Your task to perform on an android device: Clear the shopping cart on costco. Add "logitech g903" to the cart on costco, then select checkout. Image 0: 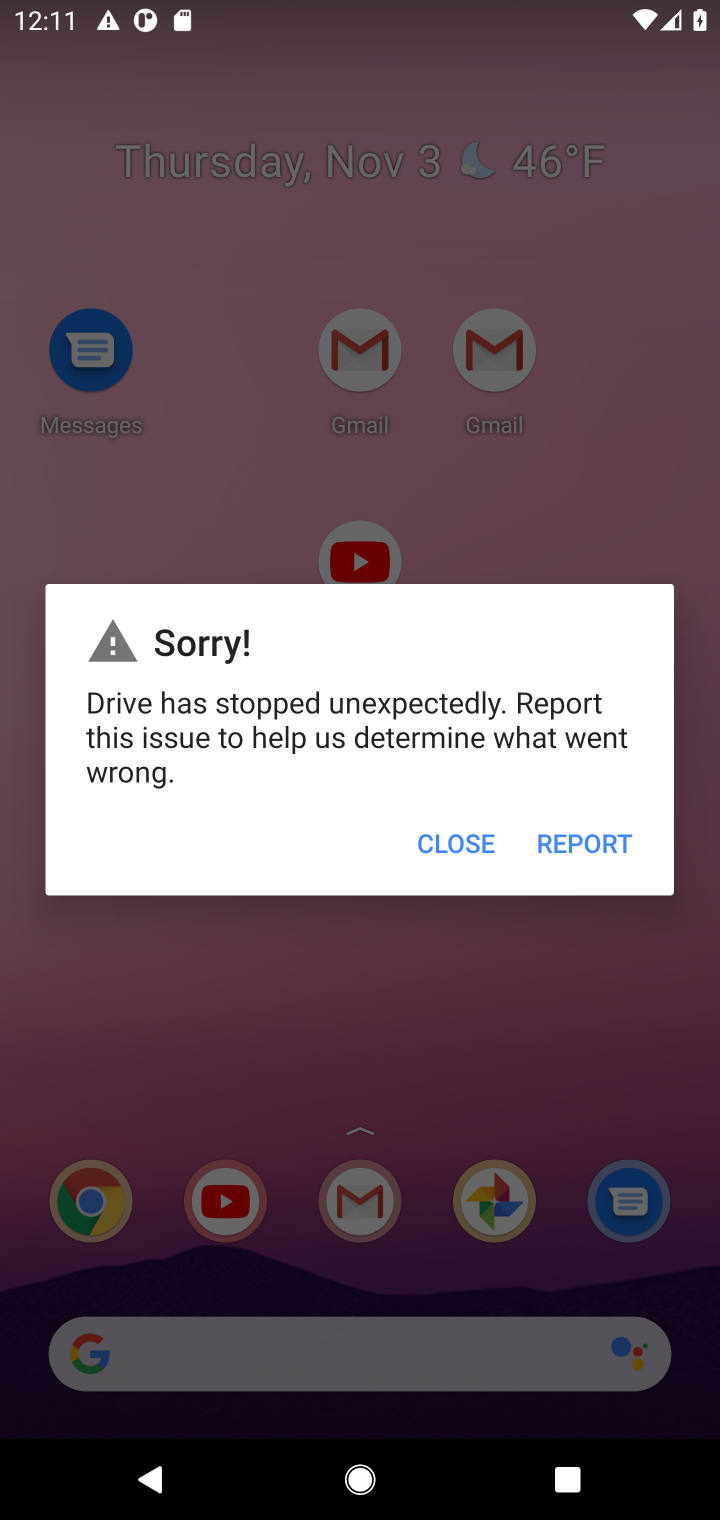
Step 0: press home button
Your task to perform on an android device: Clear the shopping cart on costco. Add "logitech g903" to the cart on costco, then select checkout. Image 1: 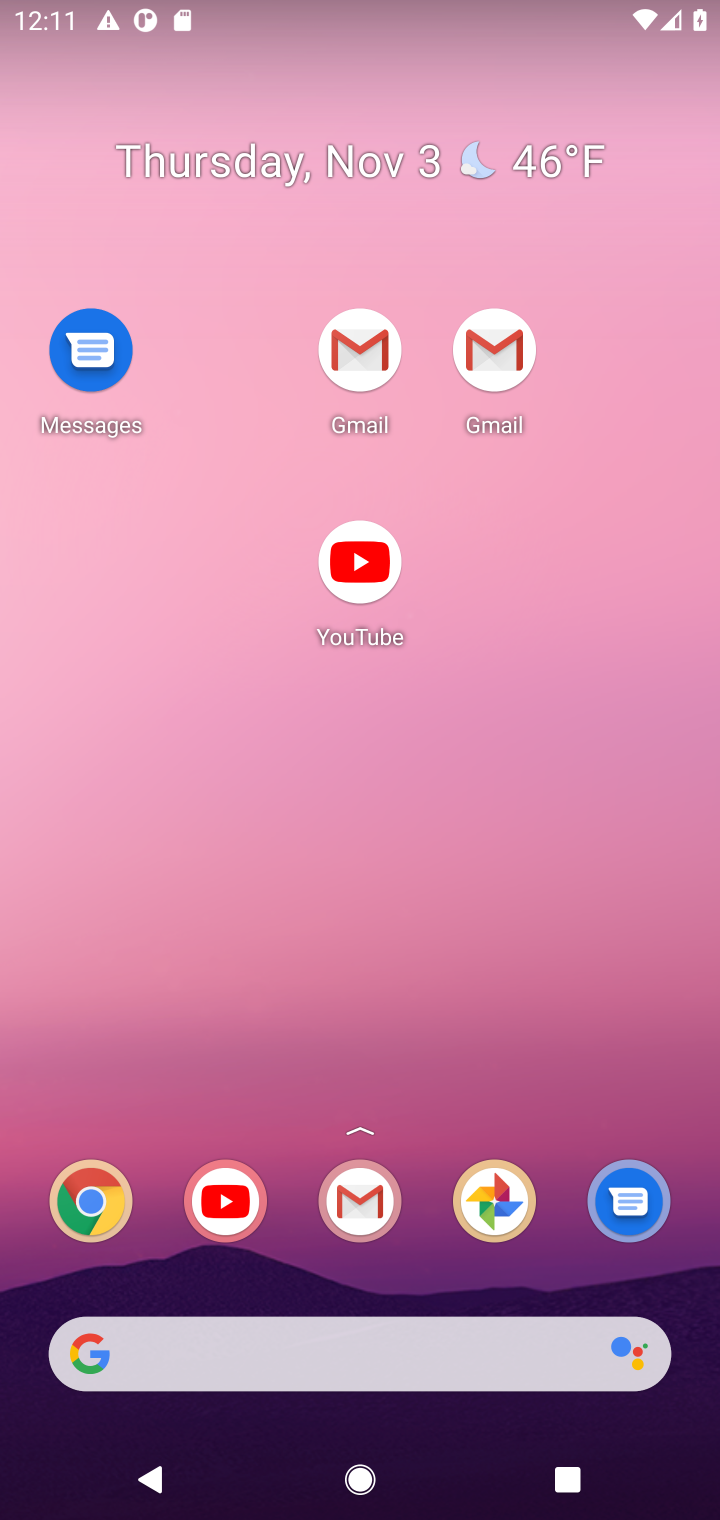
Step 1: drag from (421, 1286) to (353, 501)
Your task to perform on an android device: Clear the shopping cart on costco. Add "logitech g903" to the cart on costco, then select checkout. Image 2: 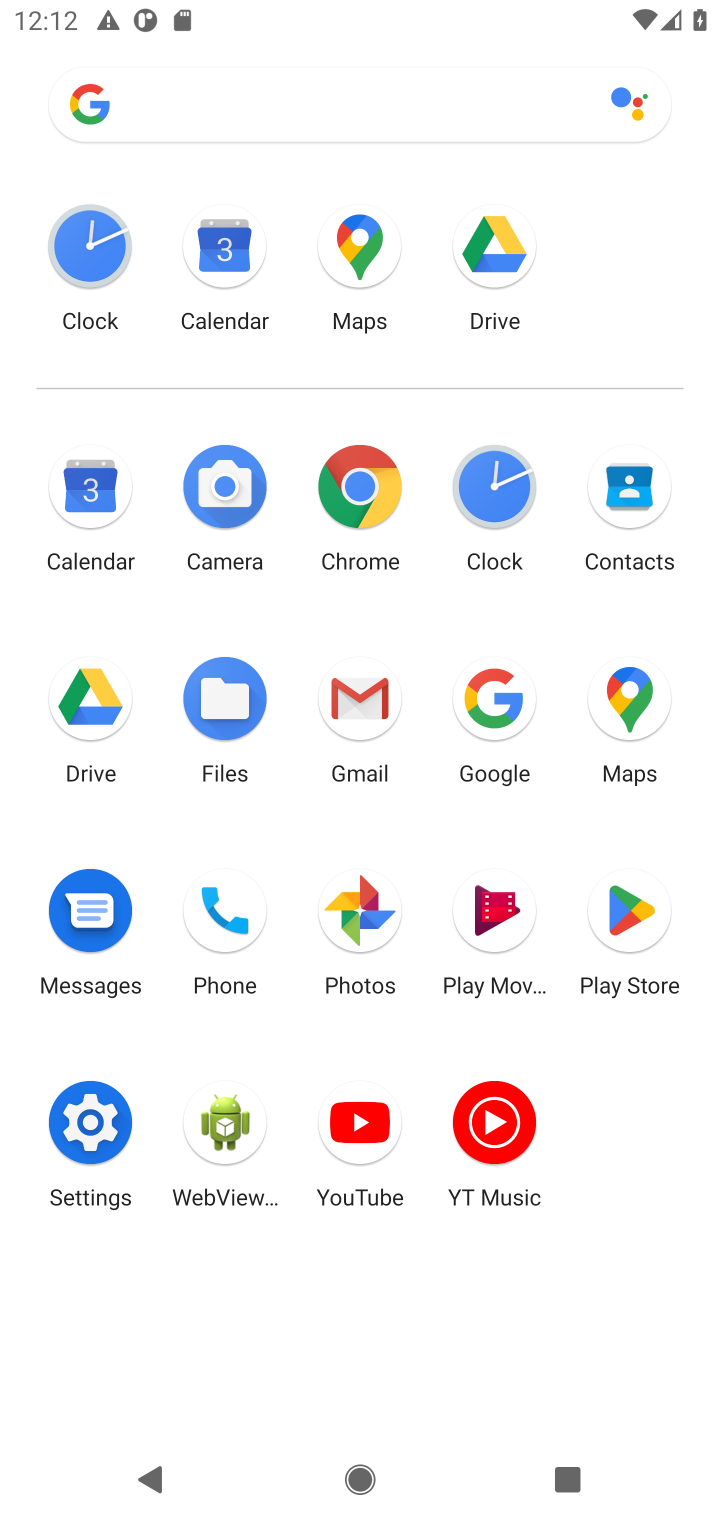
Step 2: click (330, 481)
Your task to perform on an android device: Clear the shopping cart on costco. Add "logitech g903" to the cart on costco, then select checkout. Image 3: 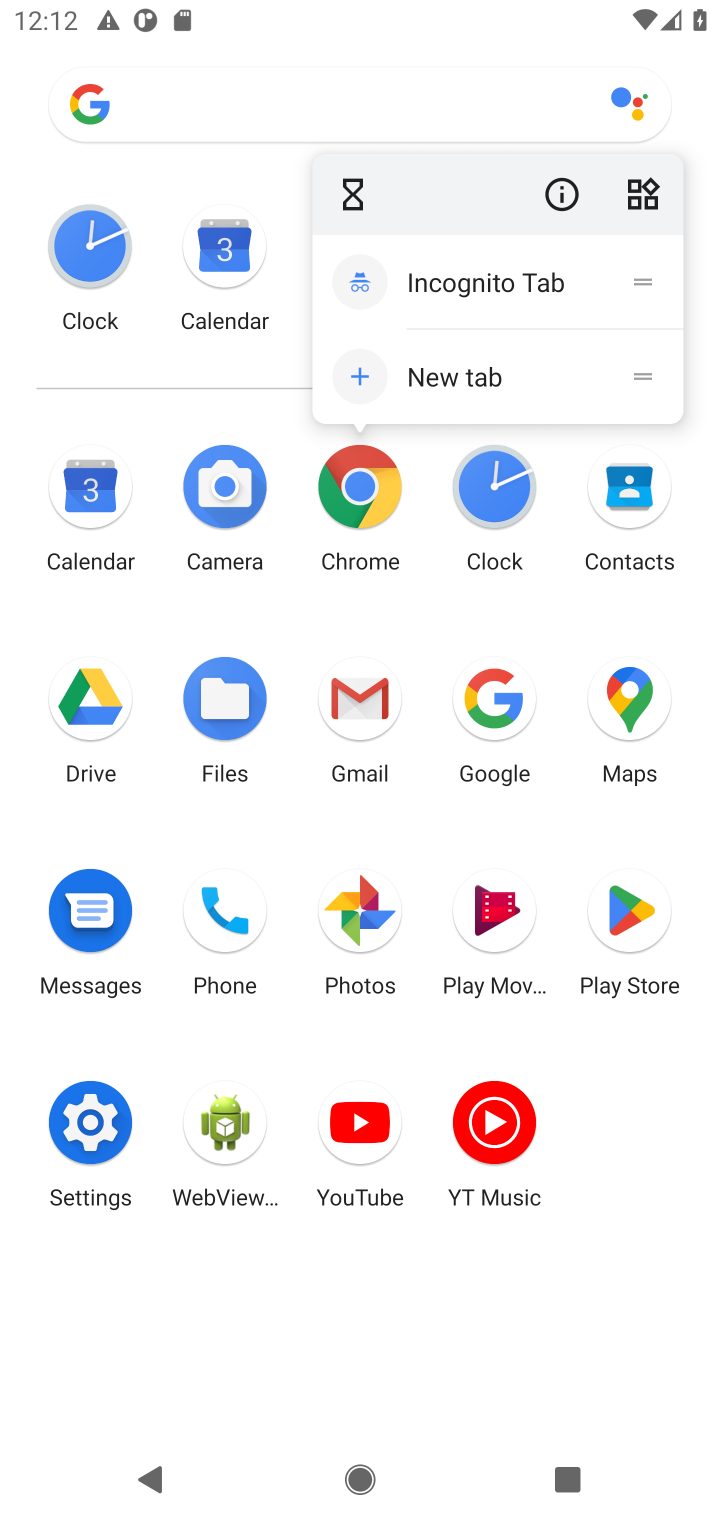
Step 3: click (363, 480)
Your task to perform on an android device: Clear the shopping cart on costco. Add "logitech g903" to the cart on costco, then select checkout. Image 4: 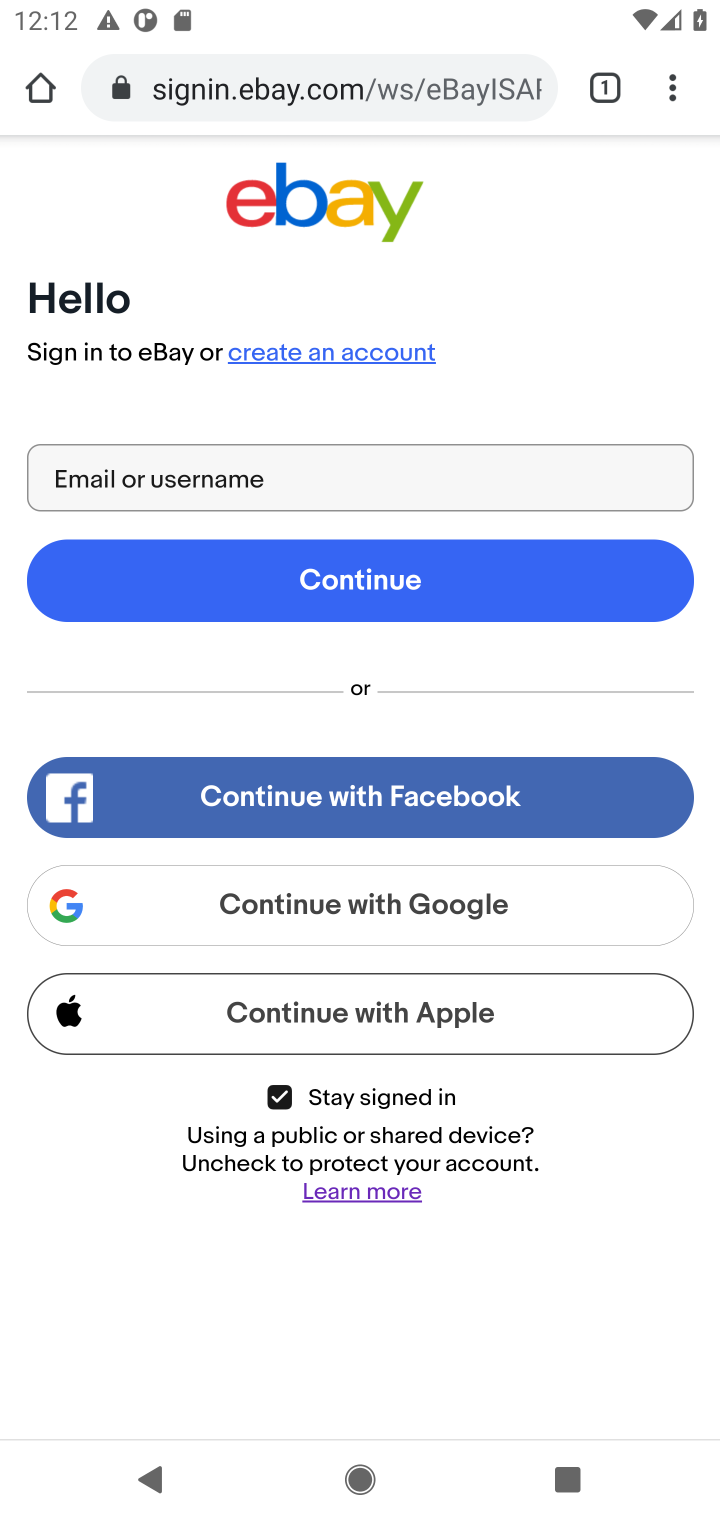
Step 4: click (479, 86)
Your task to perform on an android device: Clear the shopping cart on costco. Add "logitech g903" to the cart on costco, then select checkout. Image 5: 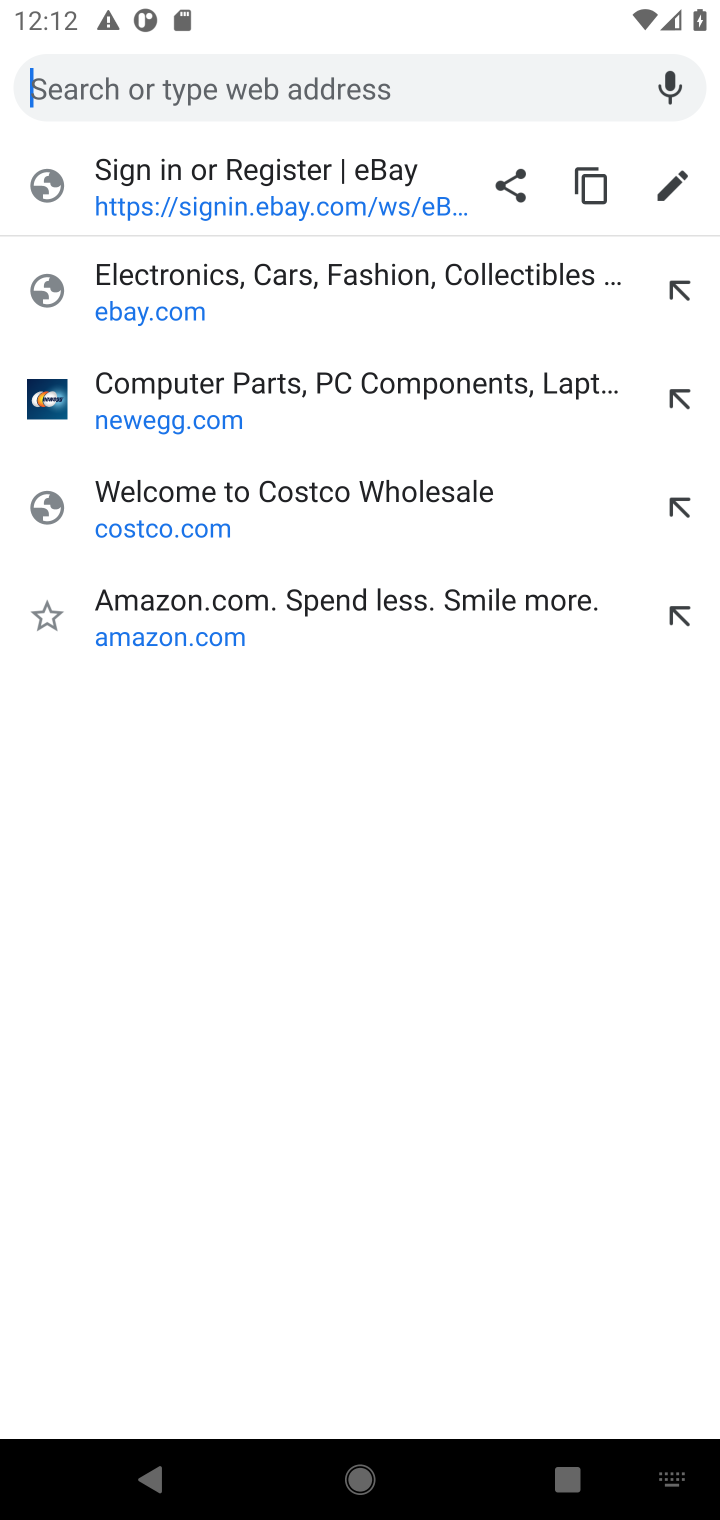
Step 5: type "costco.com"
Your task to perform on an android device: Clear the shopping cart on costco. Add "logitech g903" to the cart on costco, then select checkout. Image 6: 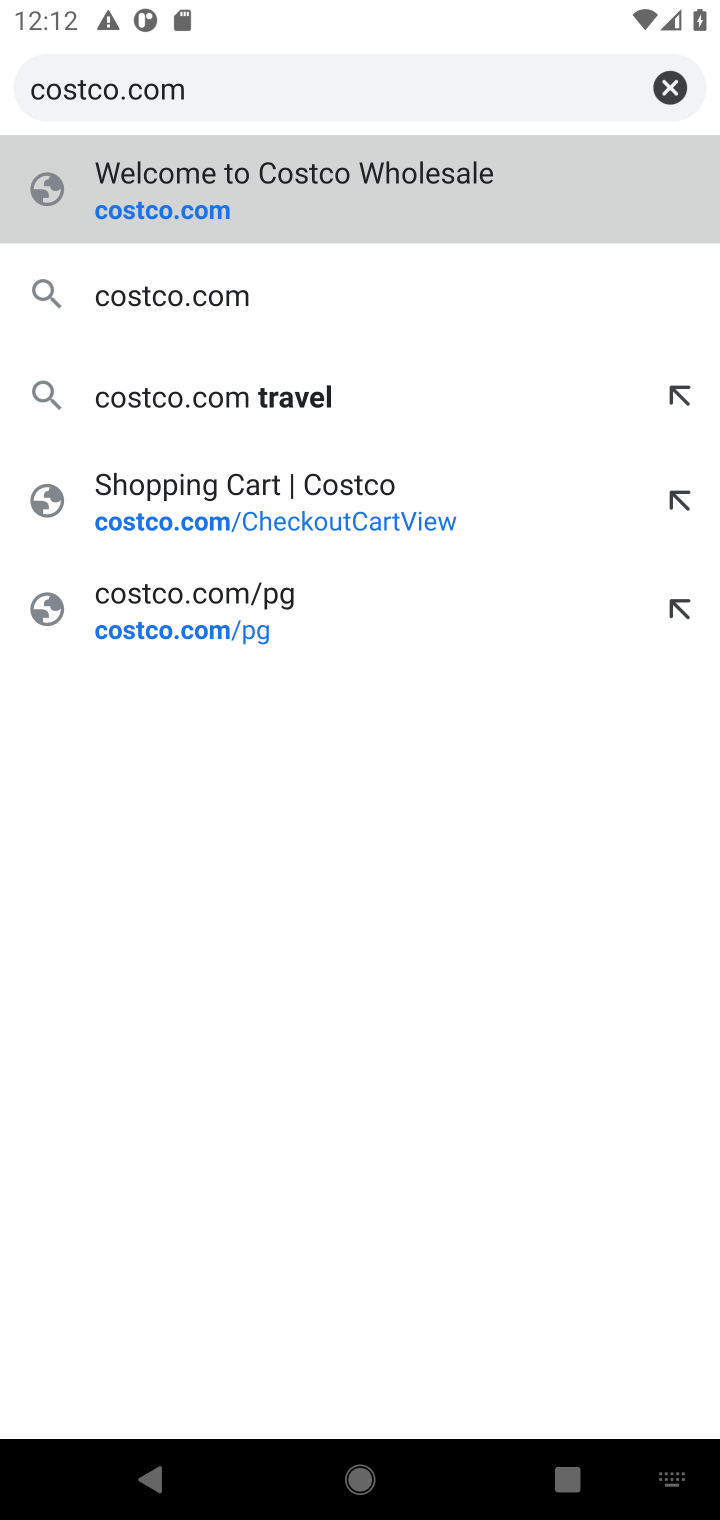
Step 6: press enter
Your task to perform on an android device: Clear the shopping cart on costco. Add "logitech g903" to the cart on costco, then select checkout. Image 7: 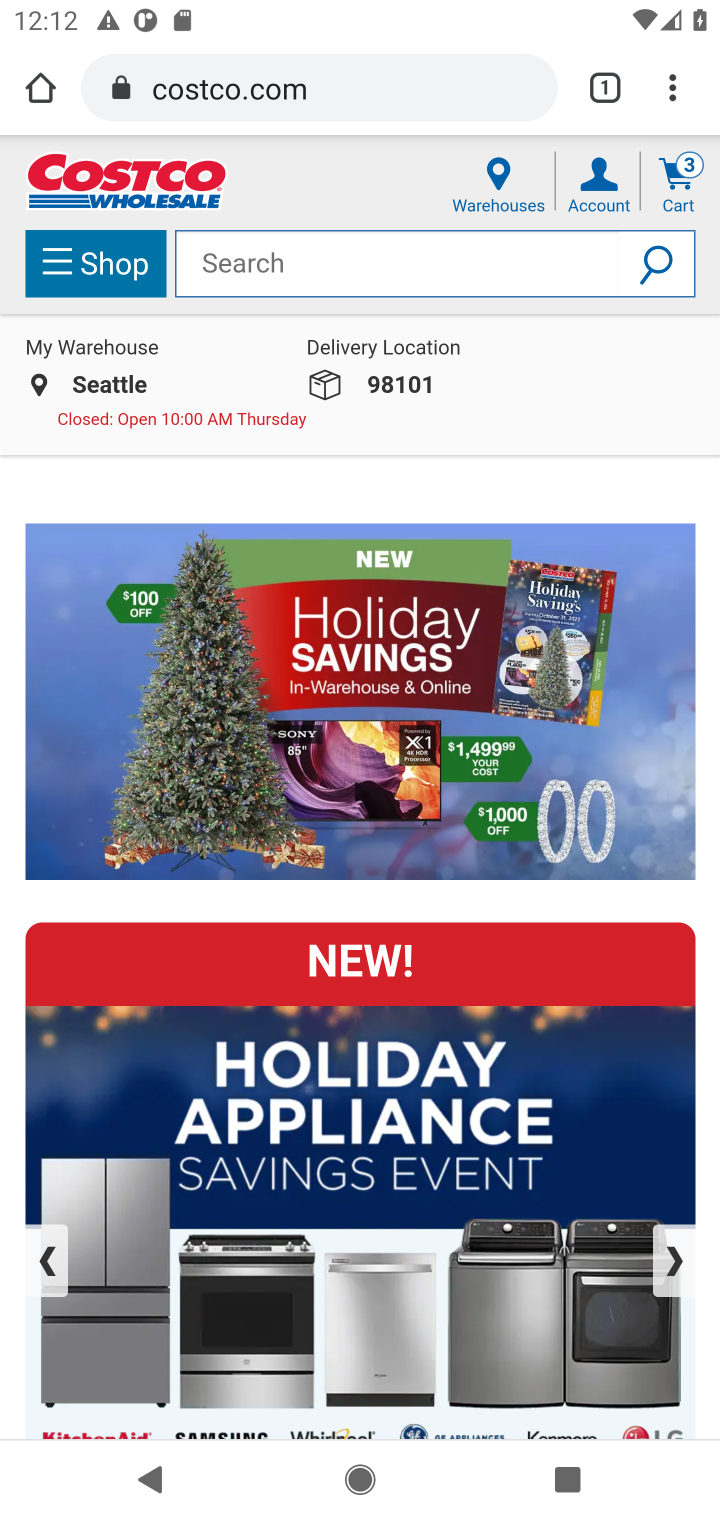
Step 7: press enter
Your task to perform on an android device: Clear the shopping cart on costco. Add "logitech g903" to the cart on costco, then select checkout. Image 8: 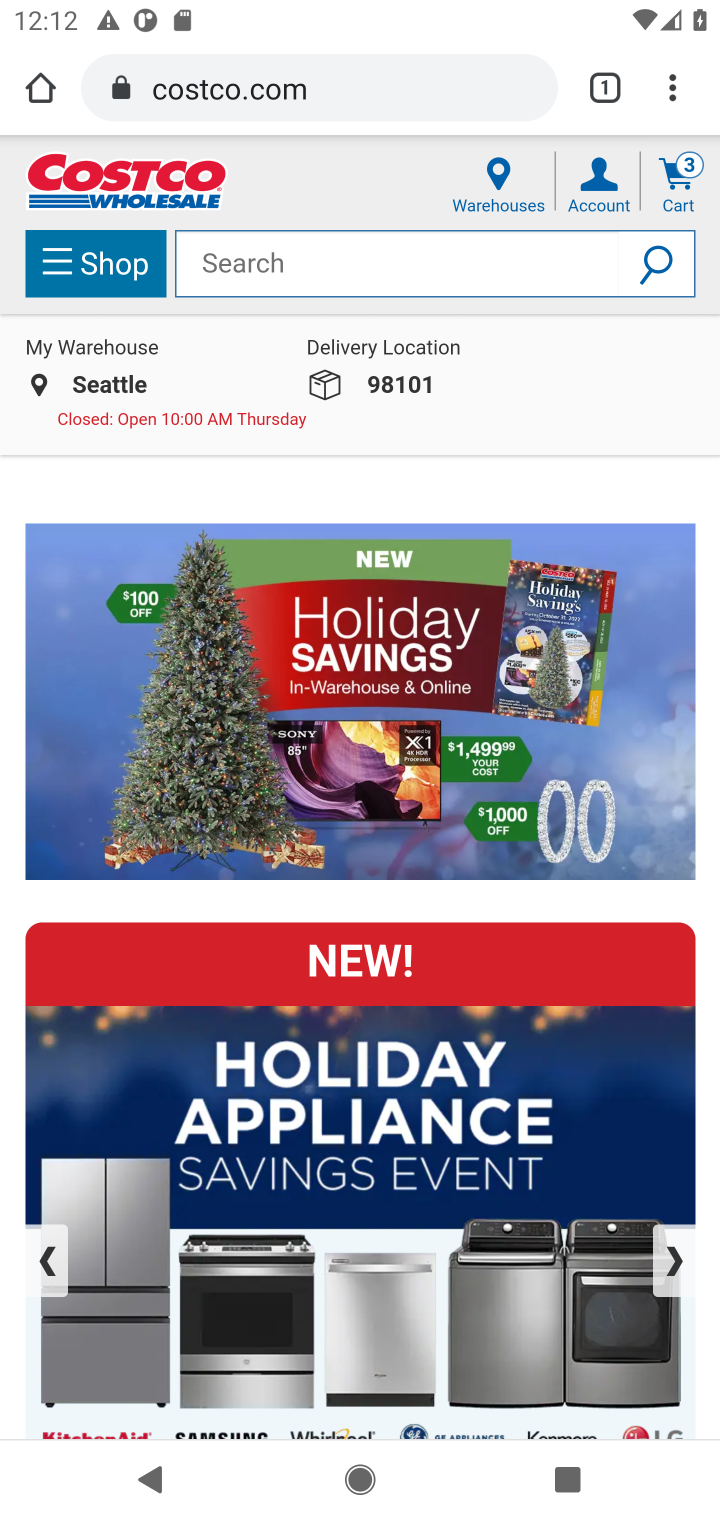
Step 8: click (694, 160)
Your task to perform on an android device: Clear the shopping cart on costco. Add "logitech g903" to the cart on costco, then select checkout. Image 9: 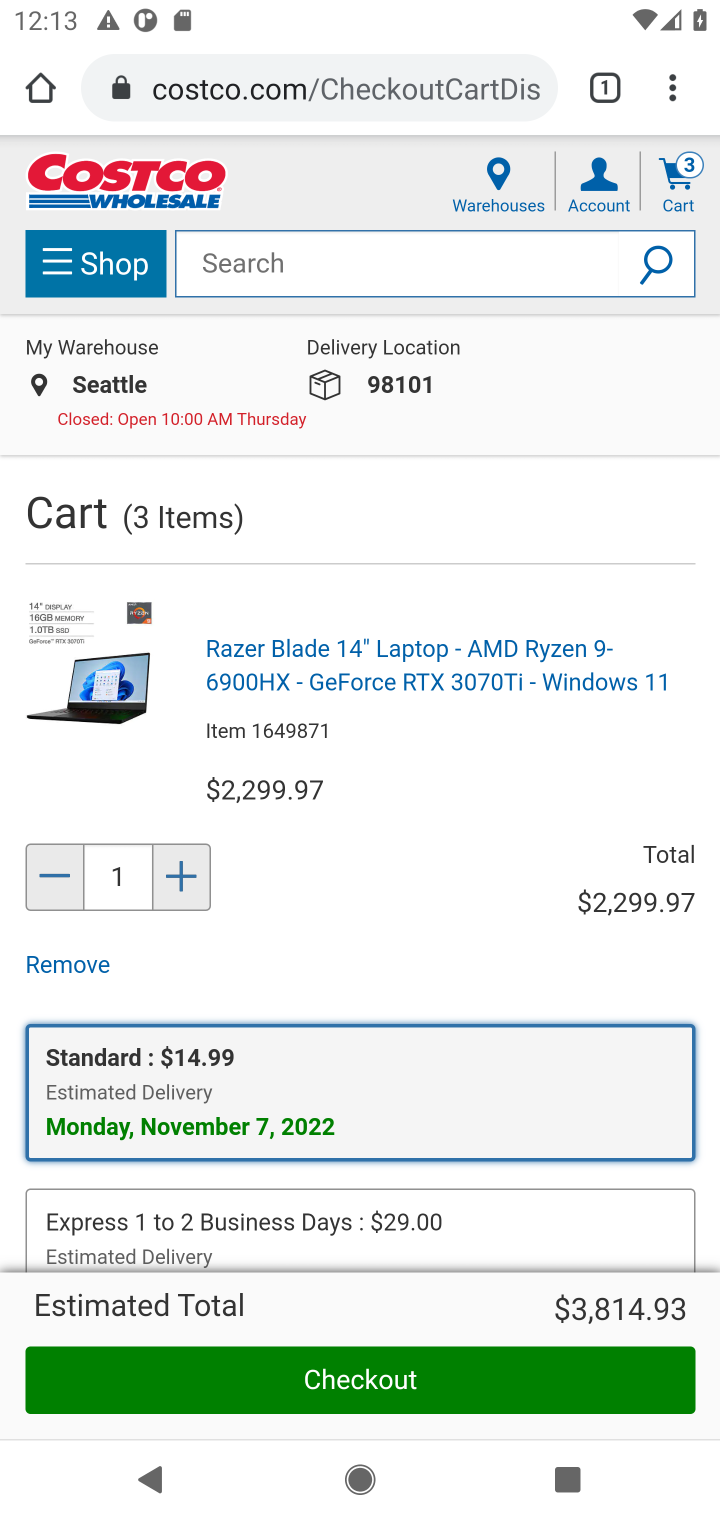
Step 9: click (70, 964)
Your task to perform on an android device: Clear the shopping cart on costco. Add "logitech g903" to the cart on costco, then select checkout. Image 10: 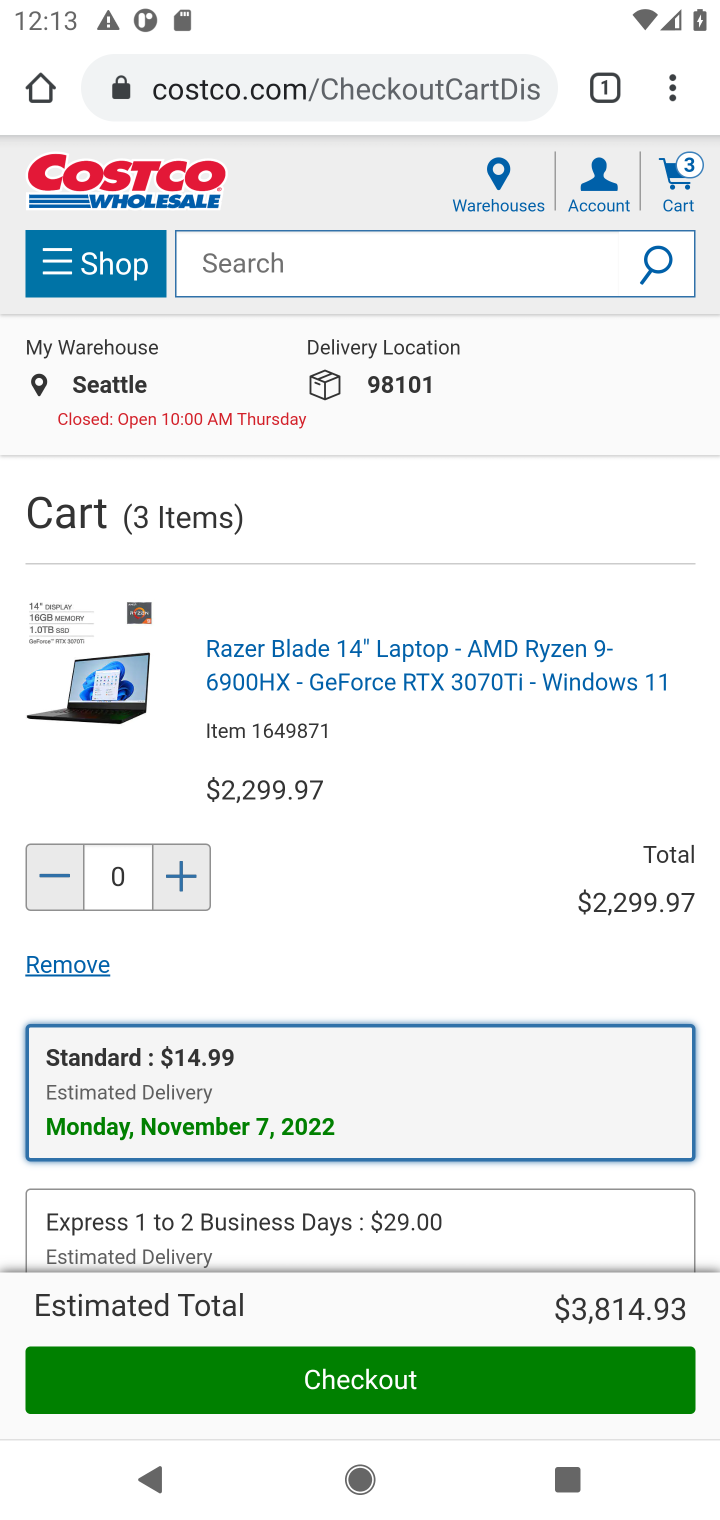
Step 10: click (70, 964)
Your task to perform on an android device: Clear the shopping cart on costco. Add "logitech g903" to the cart on costco, then select checkout. Image 11: 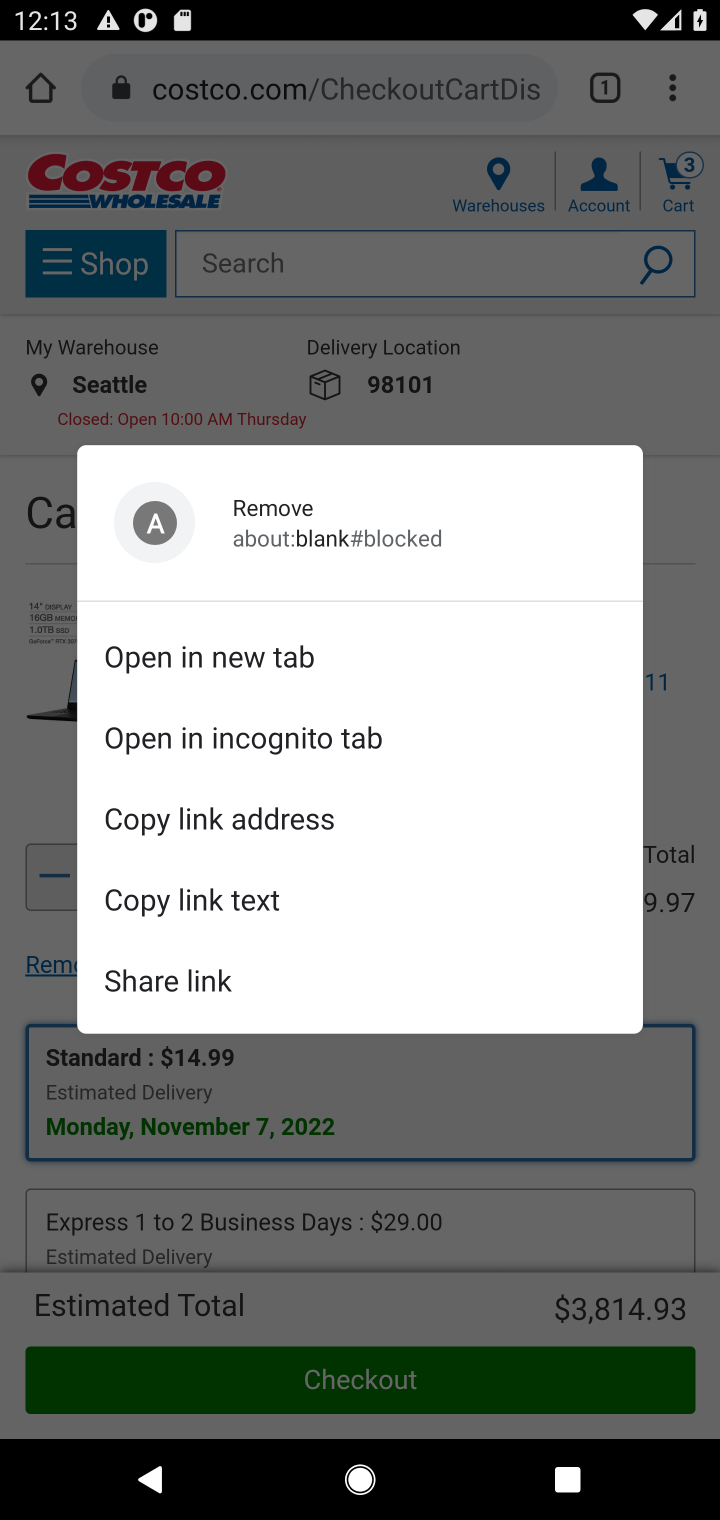
Step 11: click (625, 363)
Your task to perform on an android device: Clear the shopping cart on costco. Add "logitech g903" to the cart on costco, then select checkout. Image 12: 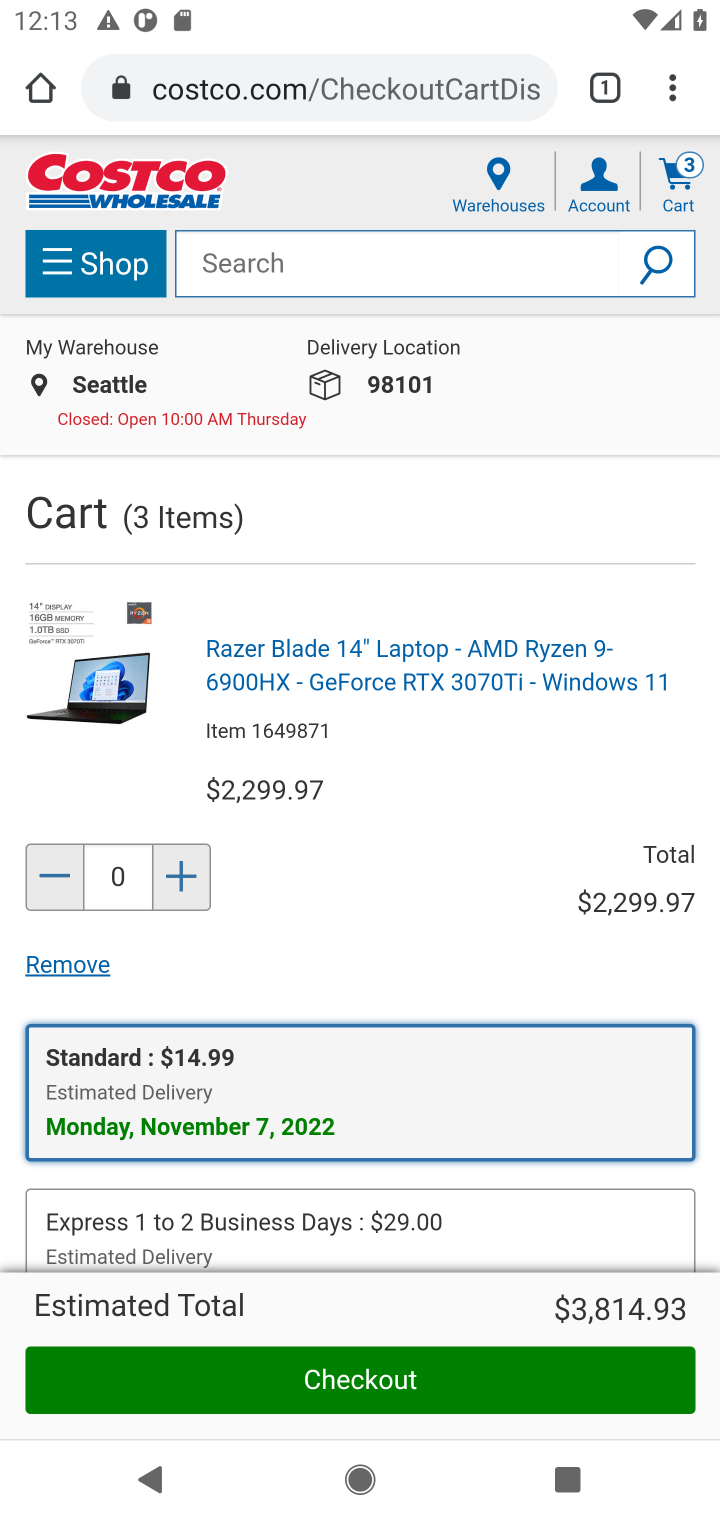
Step 12: task complete